Your task to perform on an android device: Go to eBay Image 0: 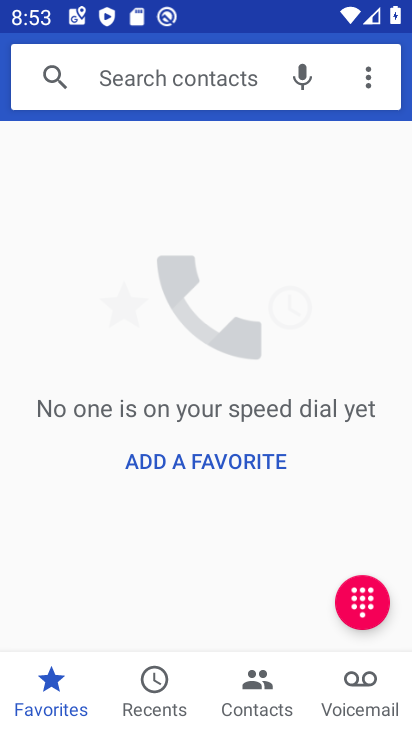
Step 0: press home button
Your task to perform on an android device: Go to eBay Image 1: 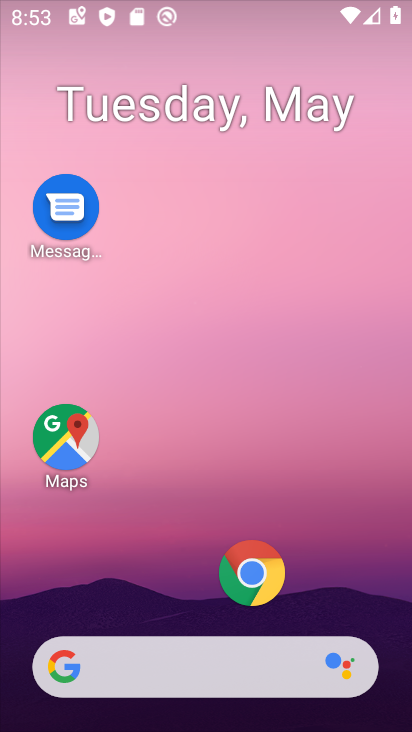
Step 1: drag from (300, 692) to (143, 158)
Your task to perform on an android device: Go to eBay Image 2: 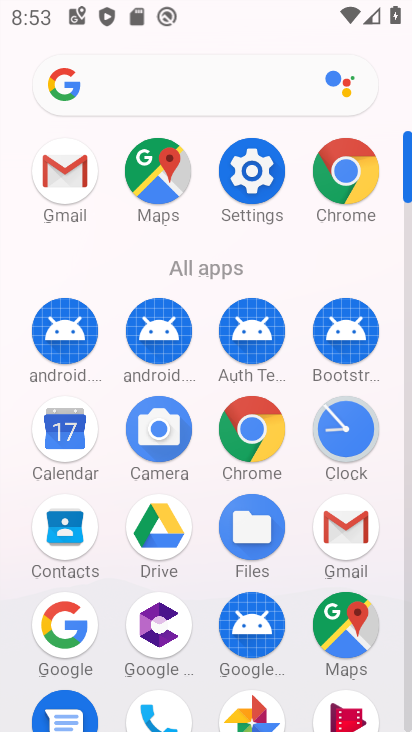
Step 2: click (342, 174)
Your task to perform on an android device: Go to eBay Image 3: 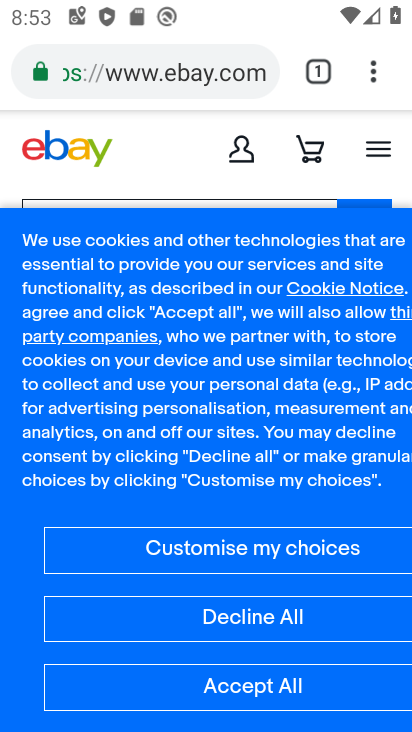
Step 3: task complete